Your task to perform on an android device: Turn off the flashlight Image 0: 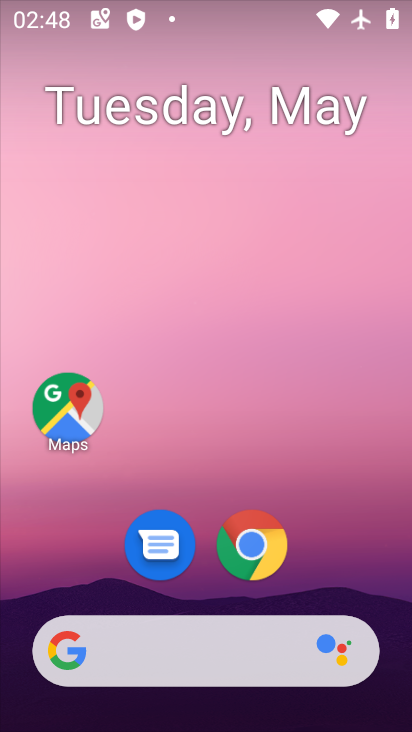
Step 0: drag from (219, 18) to (290, 450)
Your task to perform on an android device: Turn off the flashlight Image 1: 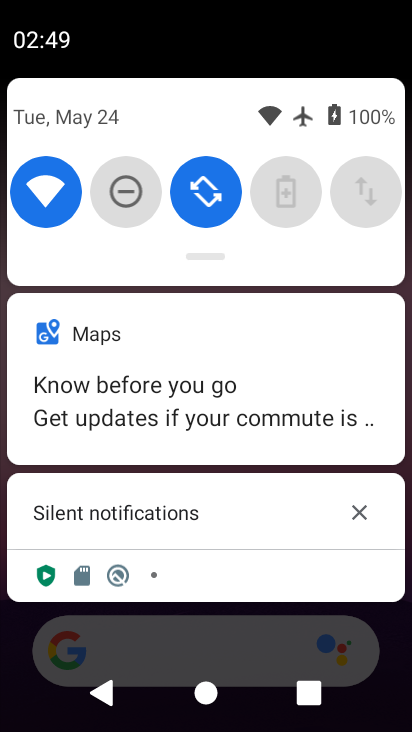
Step 1: drag from (223, 269) to (213, 500)
Your task to perform on an android device: Turn off the flashlight Image 2: 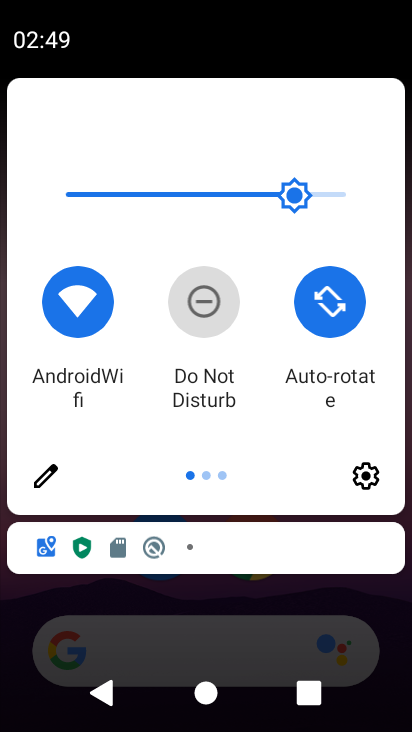
Step 2: click (38, 473)
Your task to perform on an android device: Turn off the flashlight Image 3: 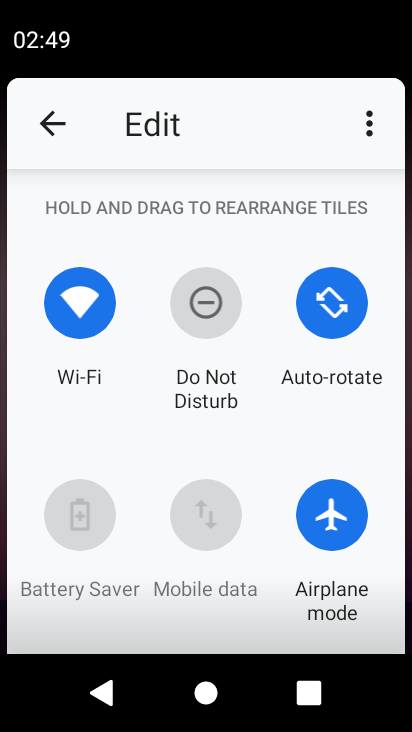
Step 3: task complete